Your task to perform on an android device: Do I have any events this weekend? Image 0: 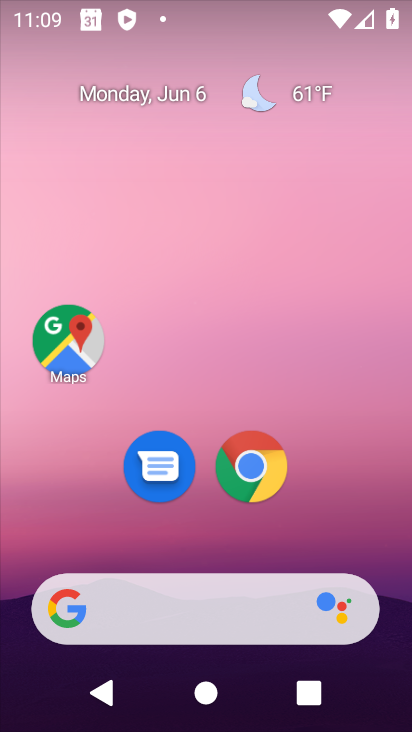
Step 0: press home button
Your task to perform on an android device: Do I have any events this weekend? Image 1: 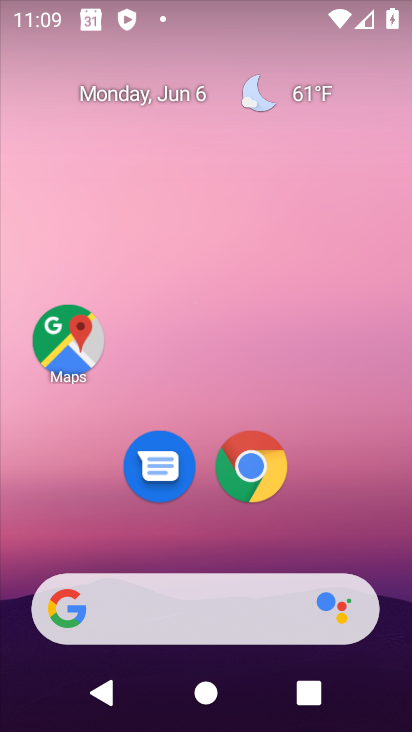
Step 1: drag from (324, 527) to (306, 165)
Your task to perform on an android device: Do I have any events this weekend? Image 2: 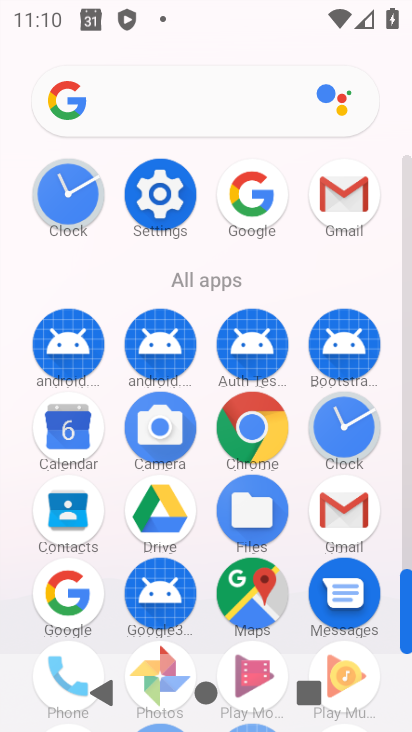
Step 2: click (73, 420)
Your task to perform on an android device: Do I have any events this weekend? Image 3: 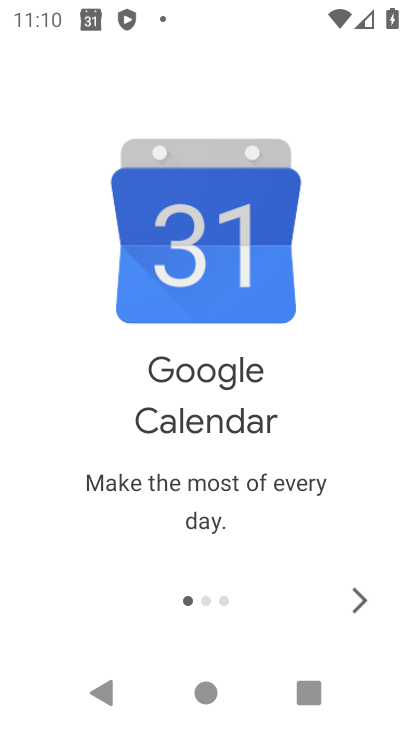
Step 3: click (347, 605)
Your task to perform on an android device: Do I have any events this weekend? Image 4: 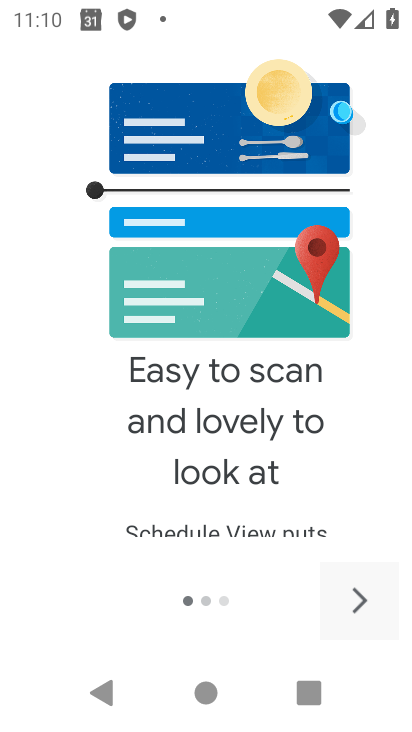
Step 4: click (347, 605)
Your task to perform on an android device: Do I have any events this weekend? Image 5: 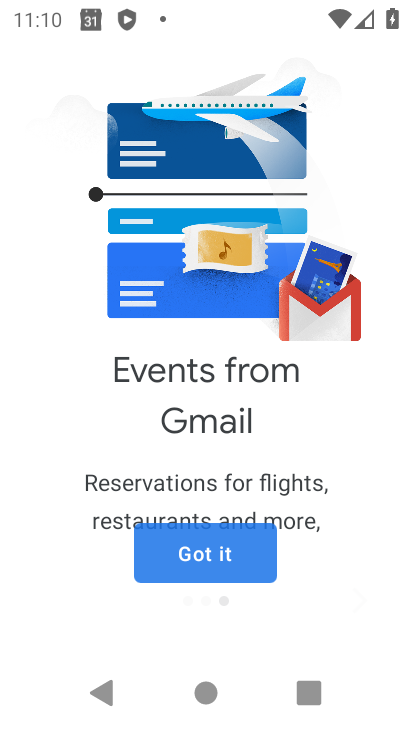
Step 5: click (196, 586)
Your task to perform on an android device: Do I have any events this weekend? Image 6: 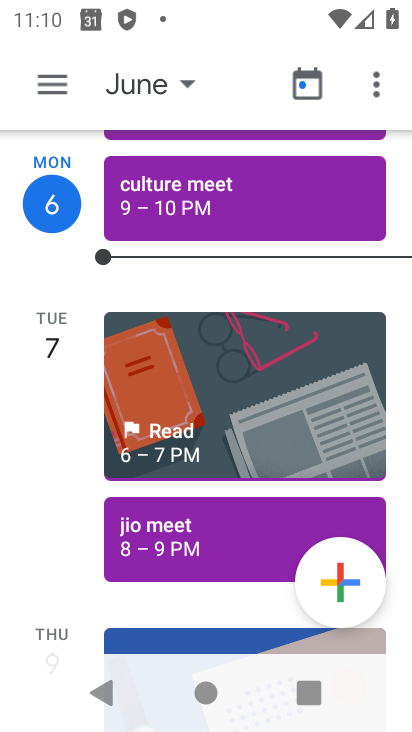
Step 6: click (177, 73)
Your task to perform on an android device: Do I have any events this weekend? Image 7: 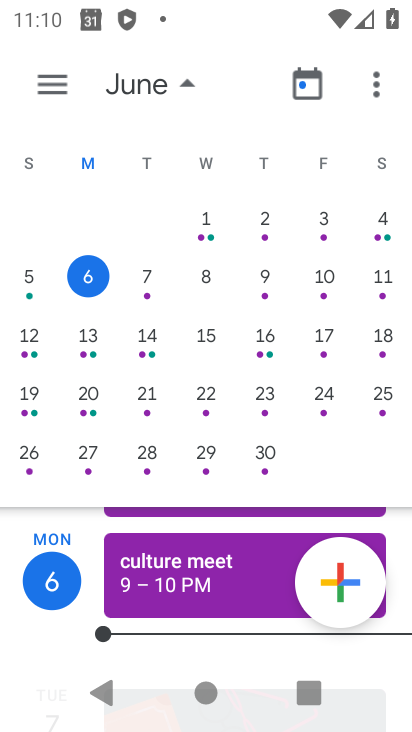
Step 7: click (374, 290)
Your task to perform on an android device: Do I have any events this weekend? Image 8: 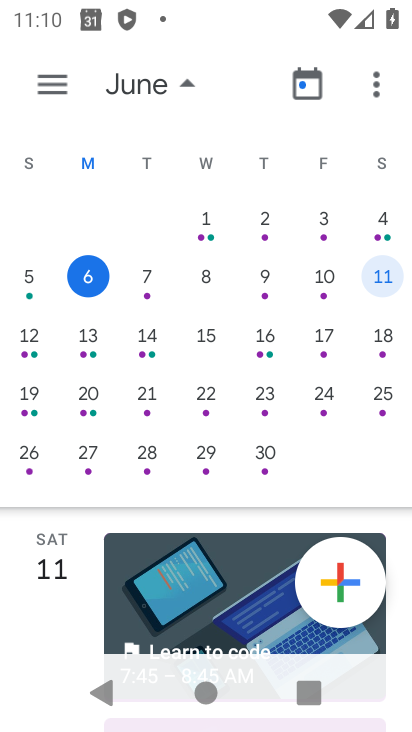
Step 8: click (142, 91)
Your task to perform on an android device: Do I have any events this weekend? Image 9: 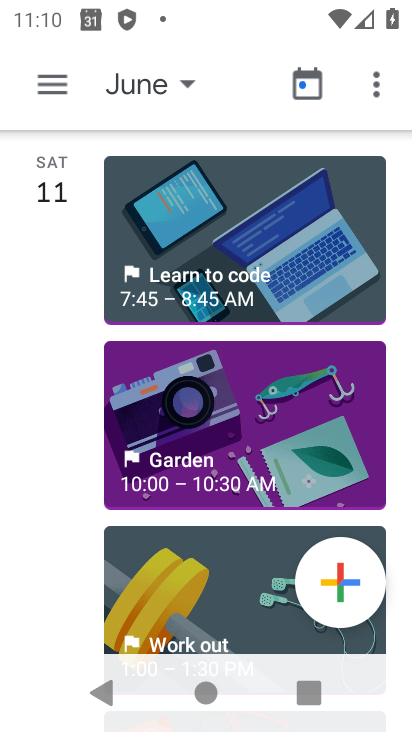
Step 9: task complete